Your task to perform on an android device: Set the phone to "Do not disturb". Image 0: 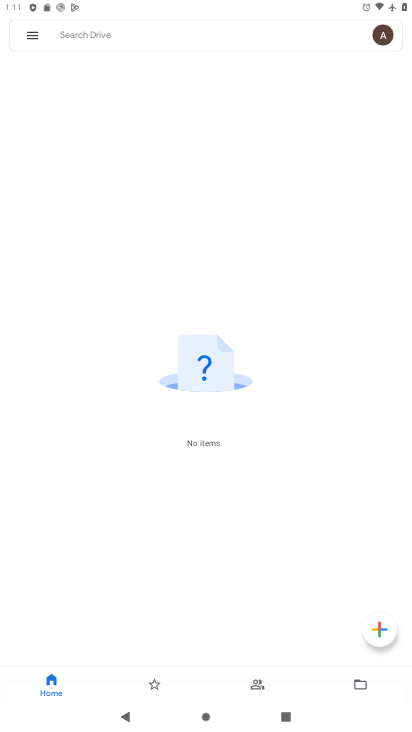
Step 0: press home button
Your task to perform on an android device: Set the phone to "Do not disturb". Image 1: 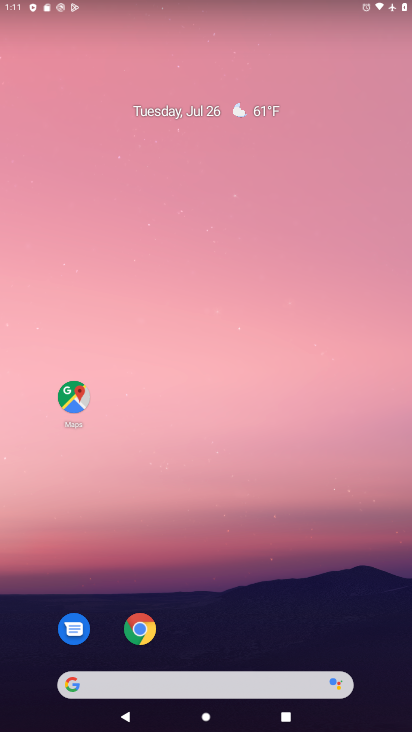
Step 1: drag from (227, 656) to (119, 139)
Your task to perform on an android device: Set the phone to "Do not disturb". Image 2: 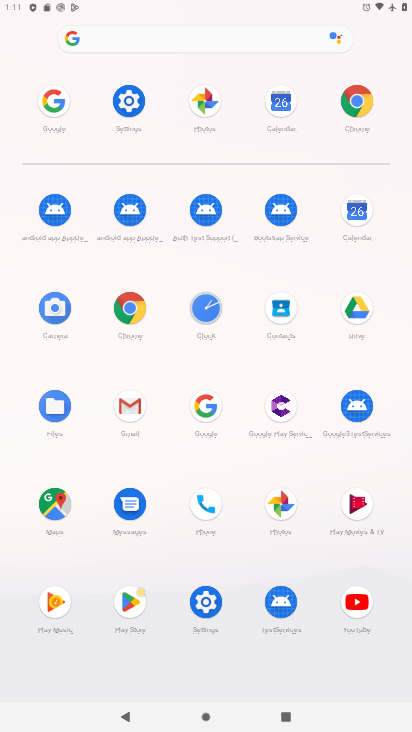
Step 2: drag from (253, 2) to (243, 399)
Your task to perform on an android device: Set the phone to "Do not disturb". Image 3: 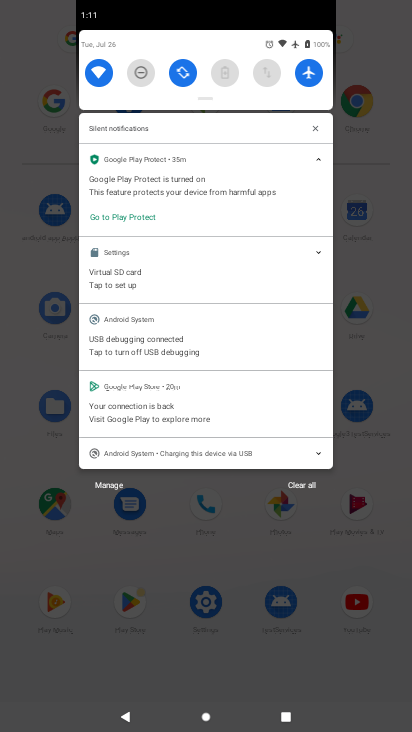
Step 3: click (144, 76)
Your task to perform on an android device: Set the phone to "Do not disturb". Image 4: 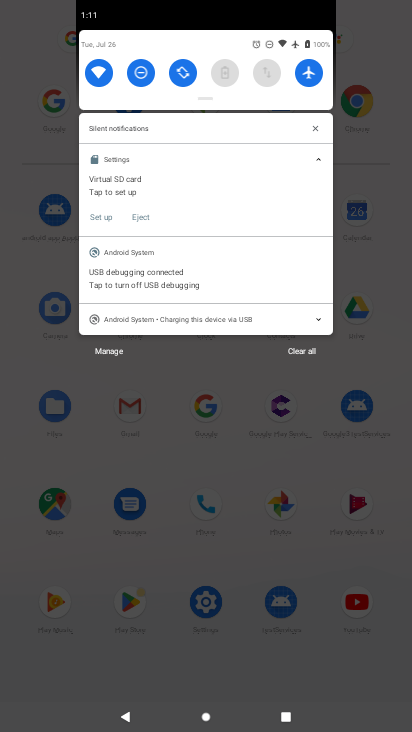
Step 4: task complete